Your task to perform on an android device: Clear the shopping cart on newegg.com. Search for "razer naga" on newegg.com, select the first entry, and add it to the cart. Image 0: 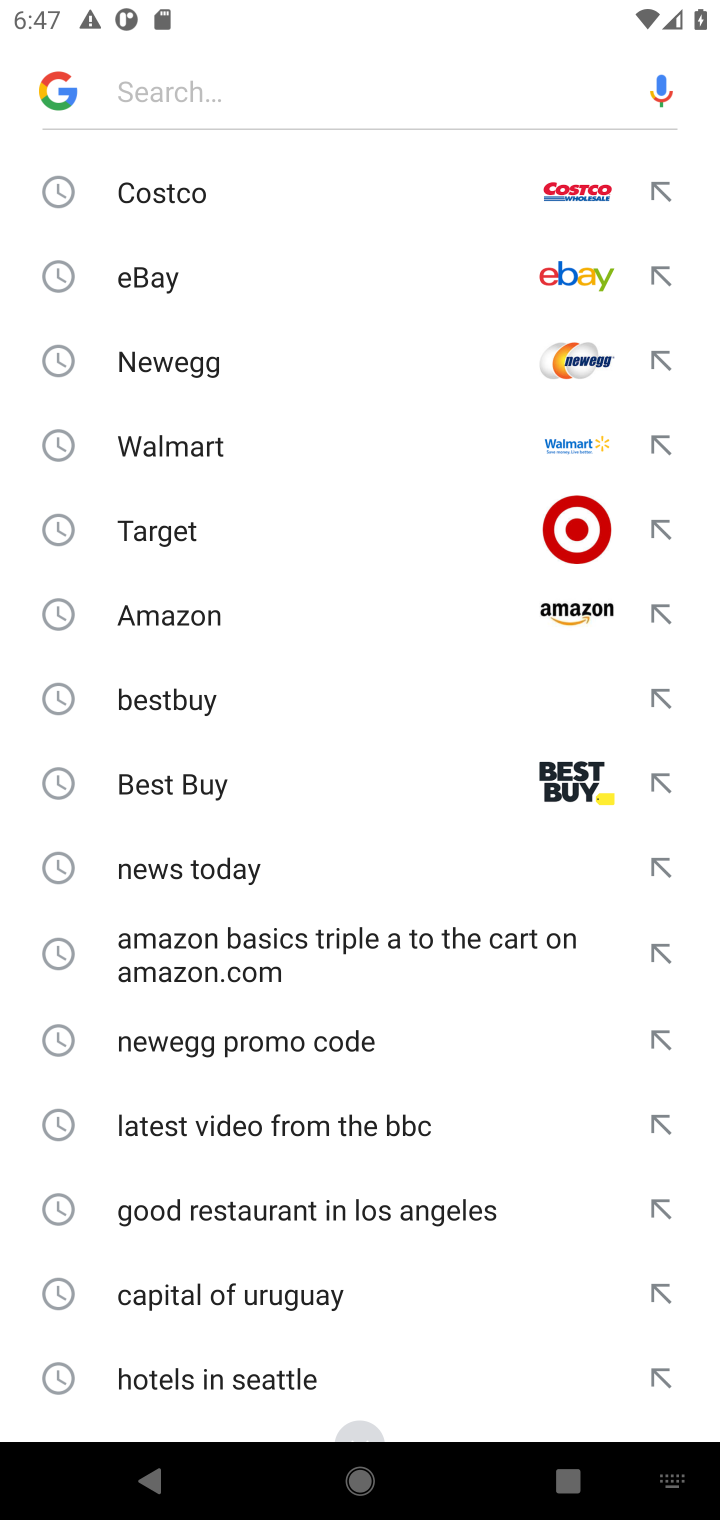
Step 0: press home button
Your task to perform on an android device: Clear the shopping cart on newegg.com. Search for "razer naga" on newegg.com, select the first entry, and add it to the cart. Image 1: 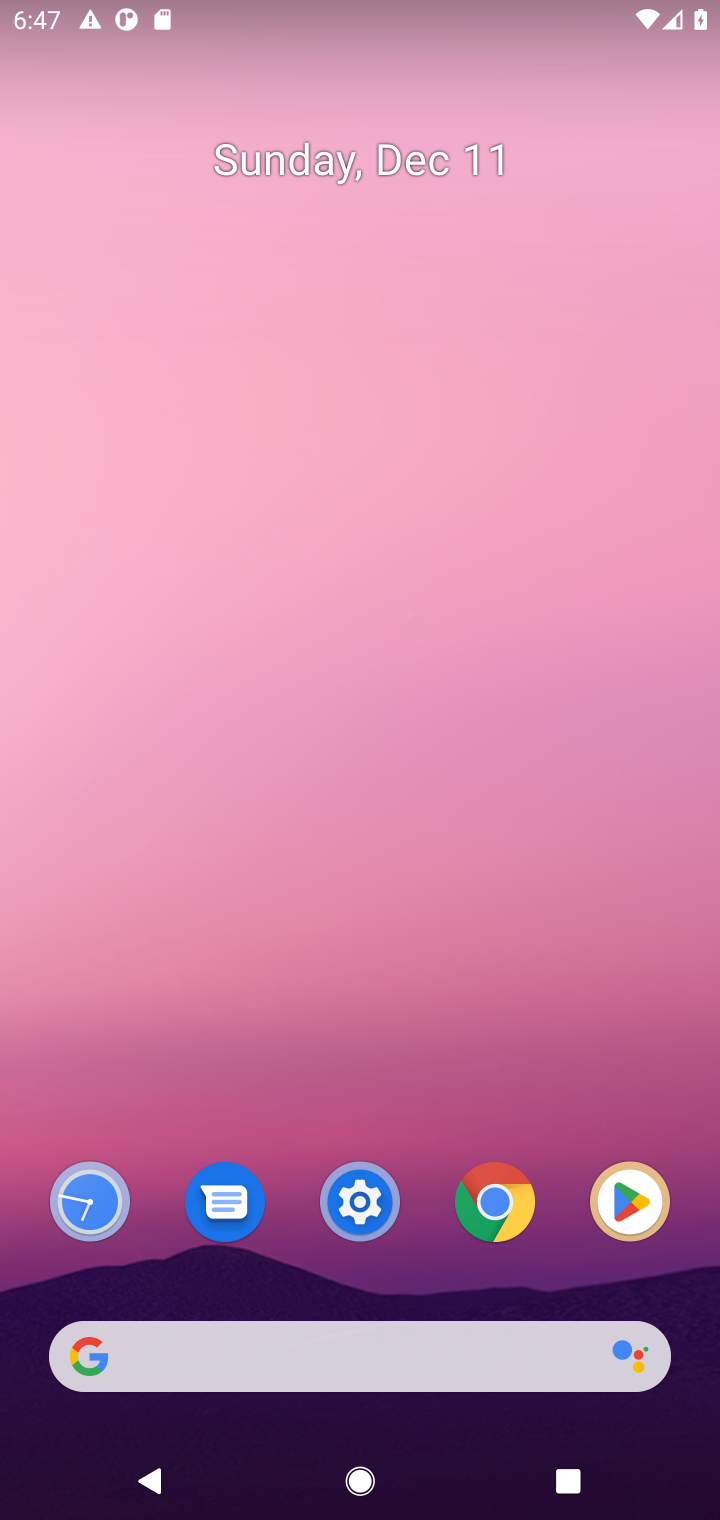
Step 1: drag from (241, 1361) to (498, 263)
Your task to perform on an android device: Clear the shopping cart on newegg.com. Search for "razer naga" on newegg.com, select the first entry, and add it to the cart. Image 2: 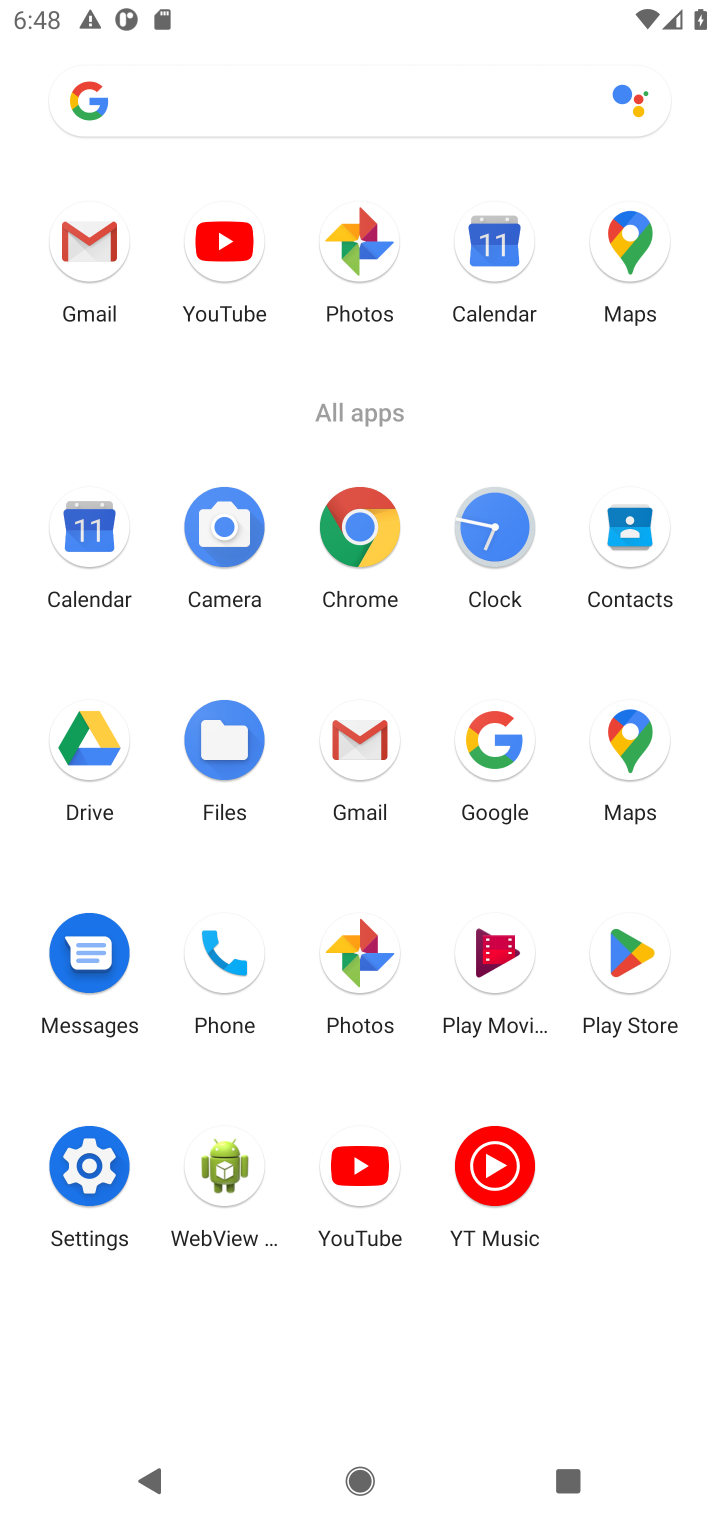
Step 2: click (363, 532)
Your task to perform on an android device: Clear the shopping cart on newegg.com. Search for "razer naga" on newegg.com, select the first entry, and add it to the cart. Image 3: 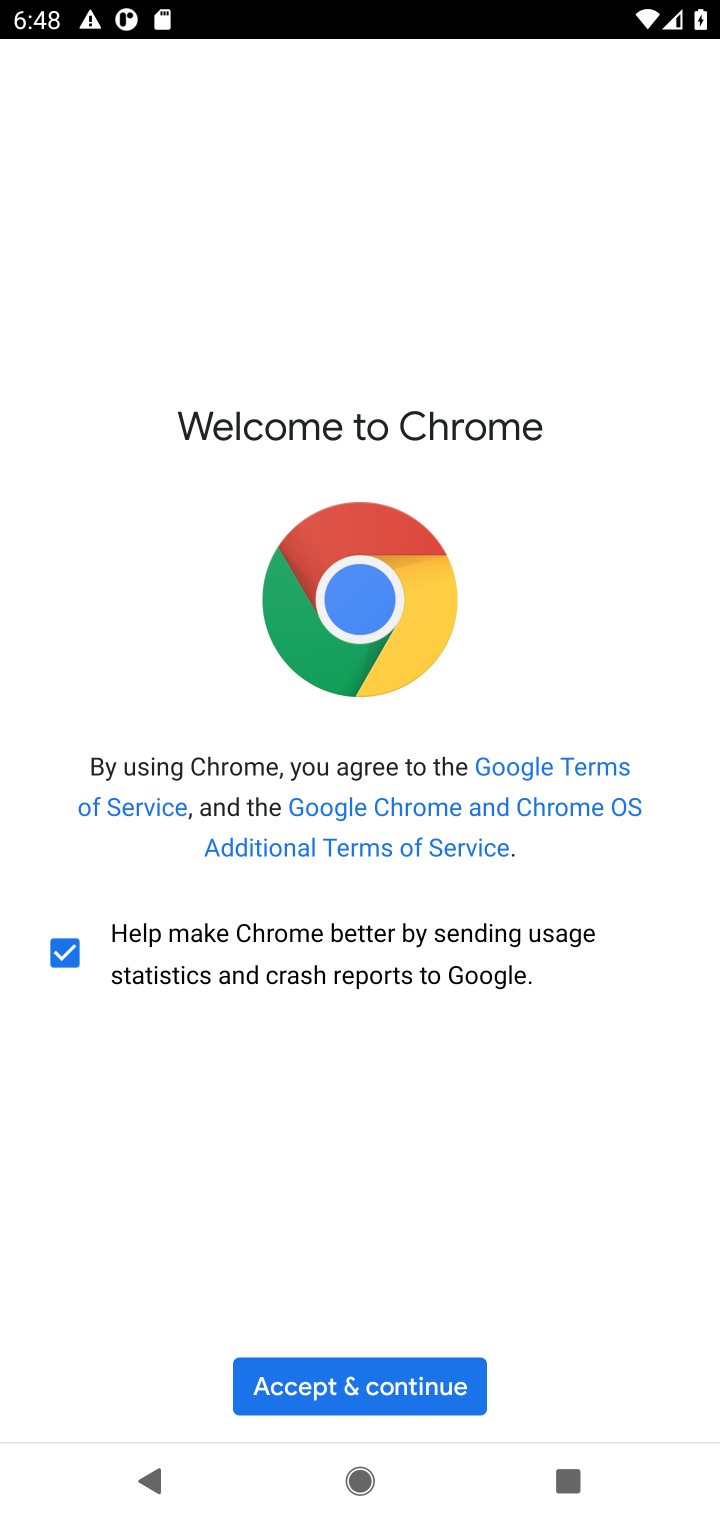
Step 3: click (375, 1377)
Your task to perform on an android device: Clear the shopping cart on newegg.com. Search for "razer naga" on newegg.com, select the first entry, and add it to the cart. Image 4: 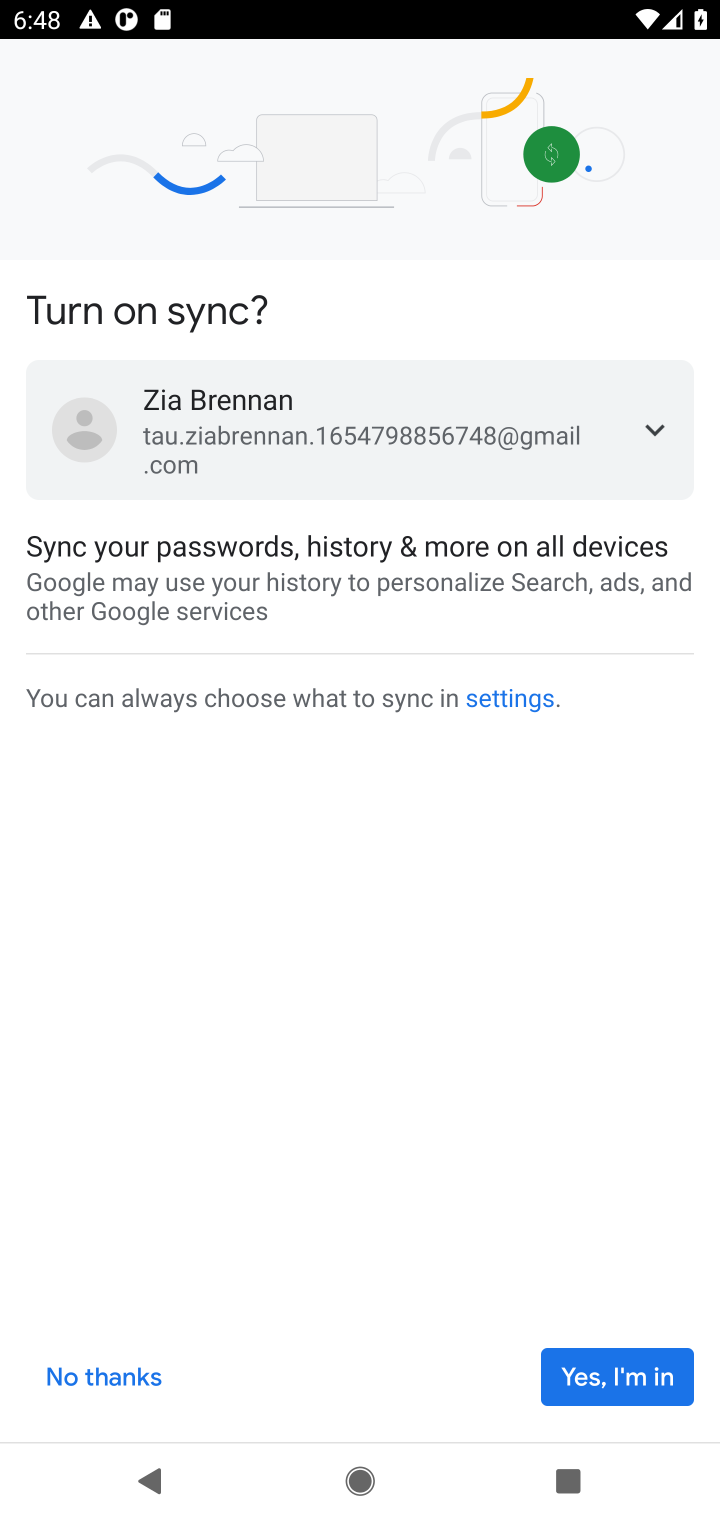
Step 4: click (612, 1373)
Your task to perform on an android device: Clear the shopping cart on newegg.com. Search for "razer naga" on newegg.com, select the first entry, and add it to the cart. Image 5: 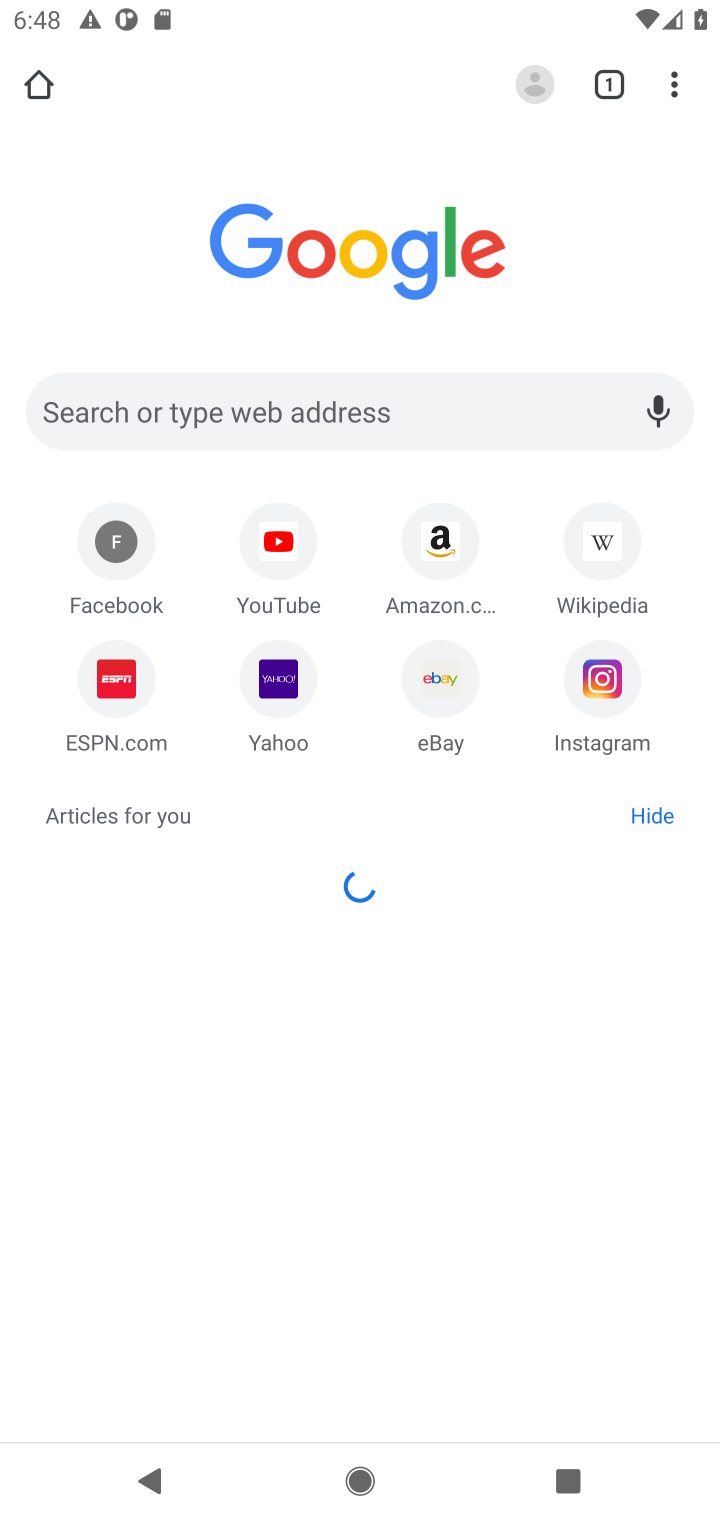
Step 5: click (475, 415)
Your task to perform on an android device: Clear the shopping cart on newegg.com. Search for "razer naga" on newegg.com, select the first entry, and add it to the cart. Image 6: 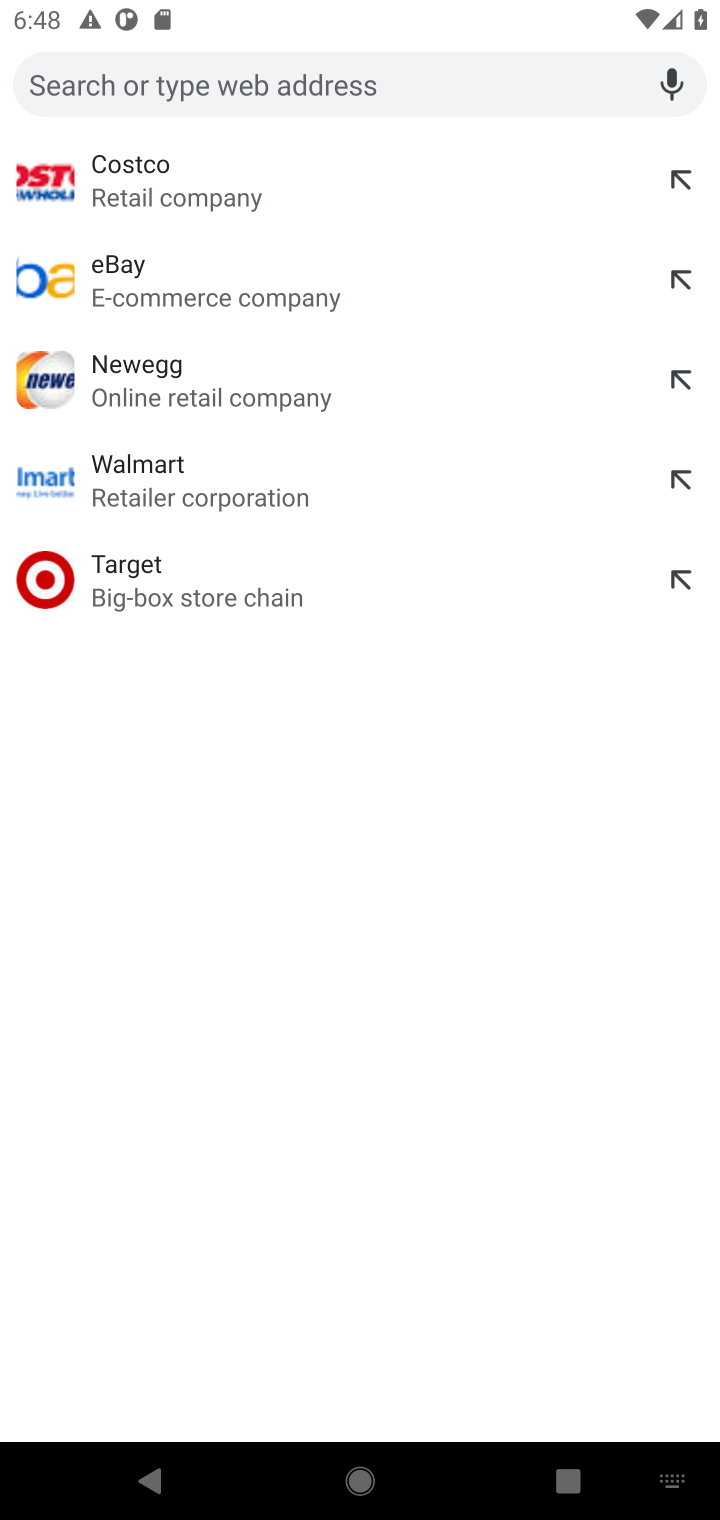
Step 6: type "newegg.com"
Your task to perform on an android device: Clear the shopping cart on newegg.com. Search for "razer naga" on newegg.com, select the first entry, and add it to the cart. Image 7: 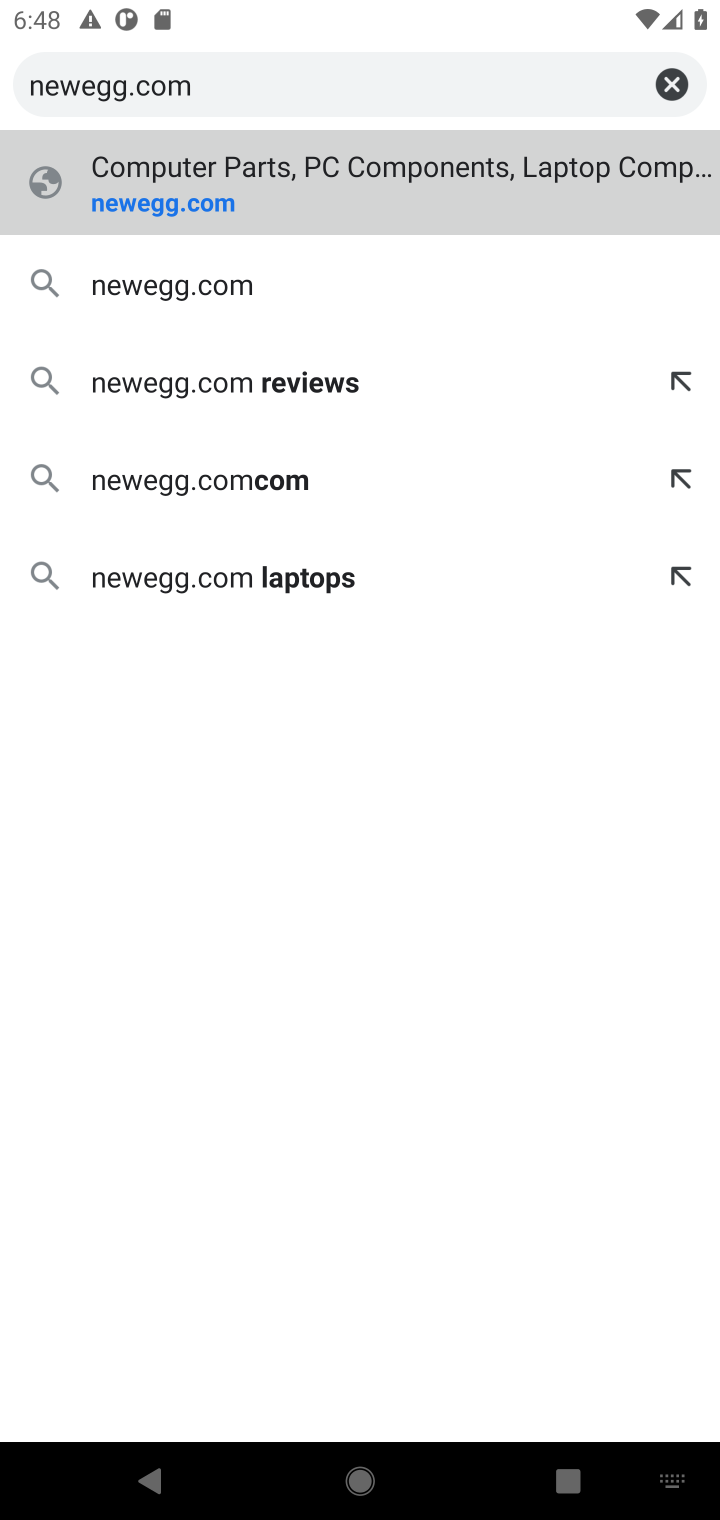
Step 7: click (218, 282)
Your task to perform on an android device: Clear the shopping cart on newegg.com. Search for "razer naga" on newegg.com, select the first entry, and add it to the cart. Image 8: 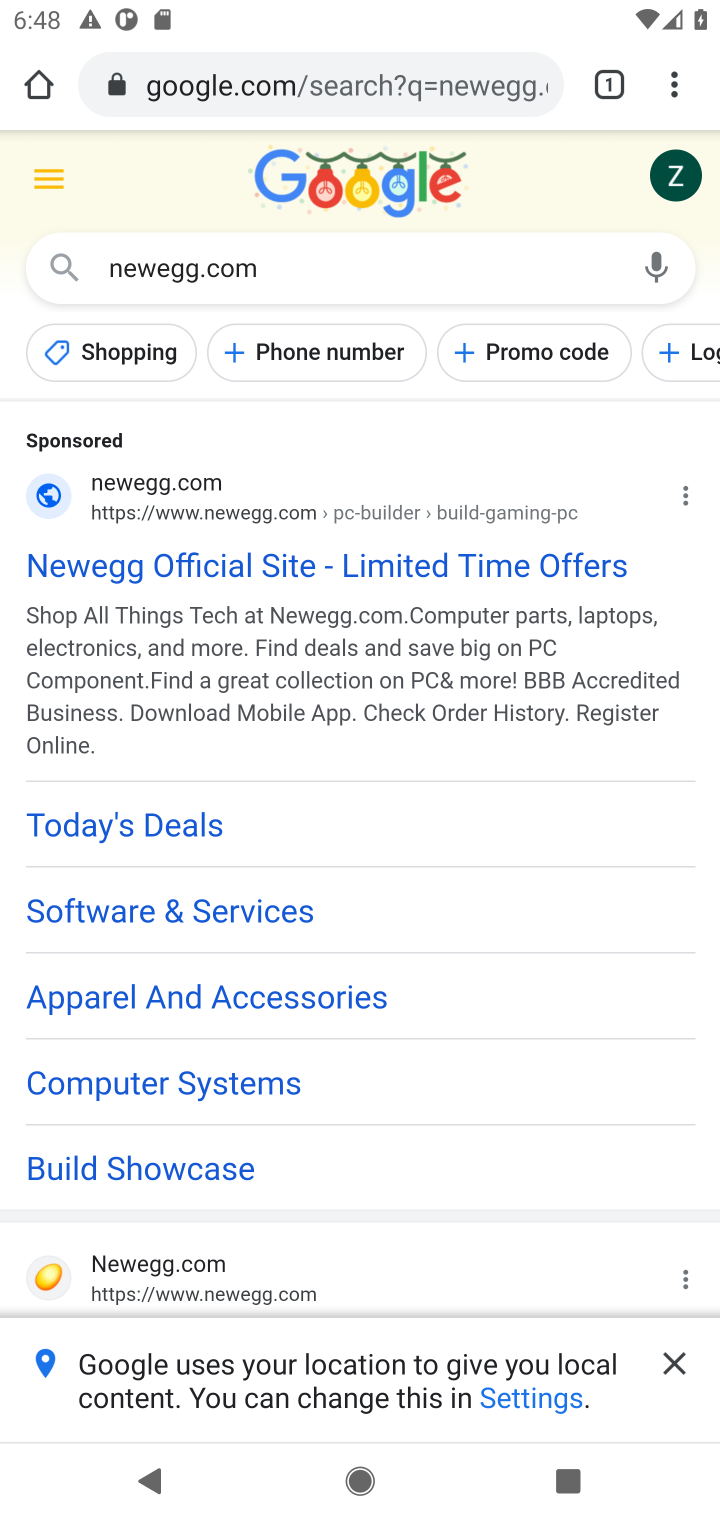
Step 8: click (240, 1272)
Your task to perform on an android device: Clear the shopping cart on newegg.com. Search for "razer naga" on newegg.com, select the first entry, and add it to the cart. Image 9: 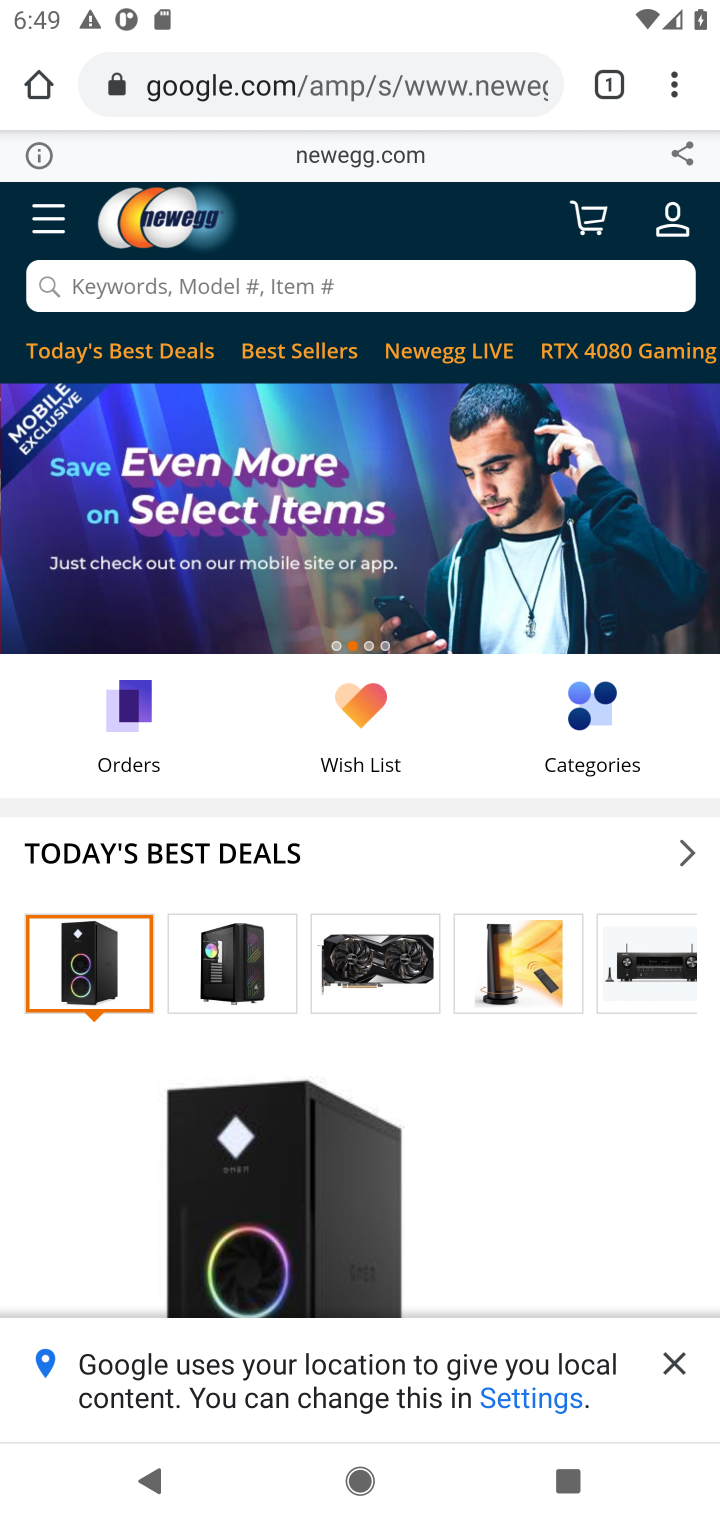
Step 9: click (601, 228)
Your task to perform on an android device: Clear the shopping cart on newegg.com. Search for "razer naga" on newegg.com, select the first entry, and add it to the cart. Image 10: 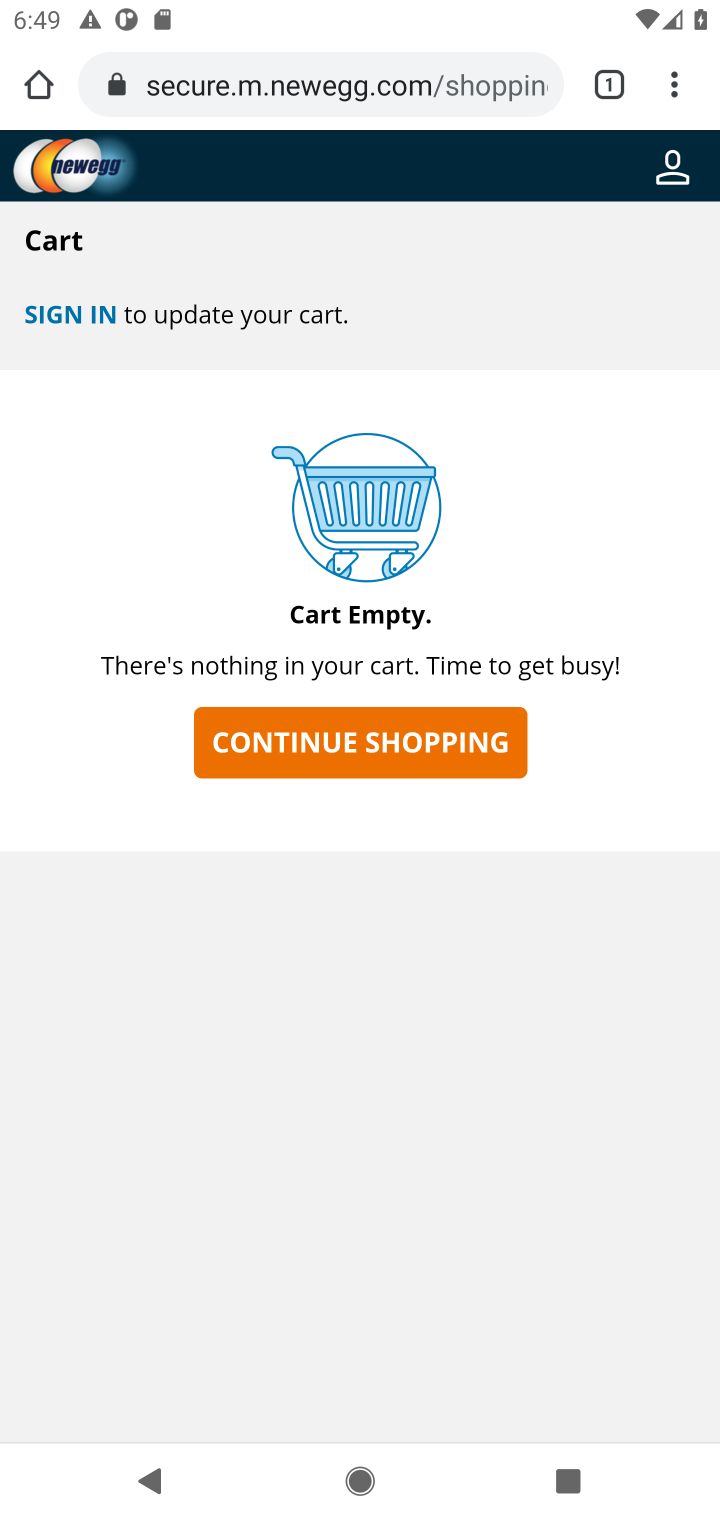
Step 10: click (339, 736)
Your task to perform on an android device: Clear the shopping cart on newegg.com. Search for "razer naga" on newegg.com, select the first entry, and add it to the cart. Image 11: 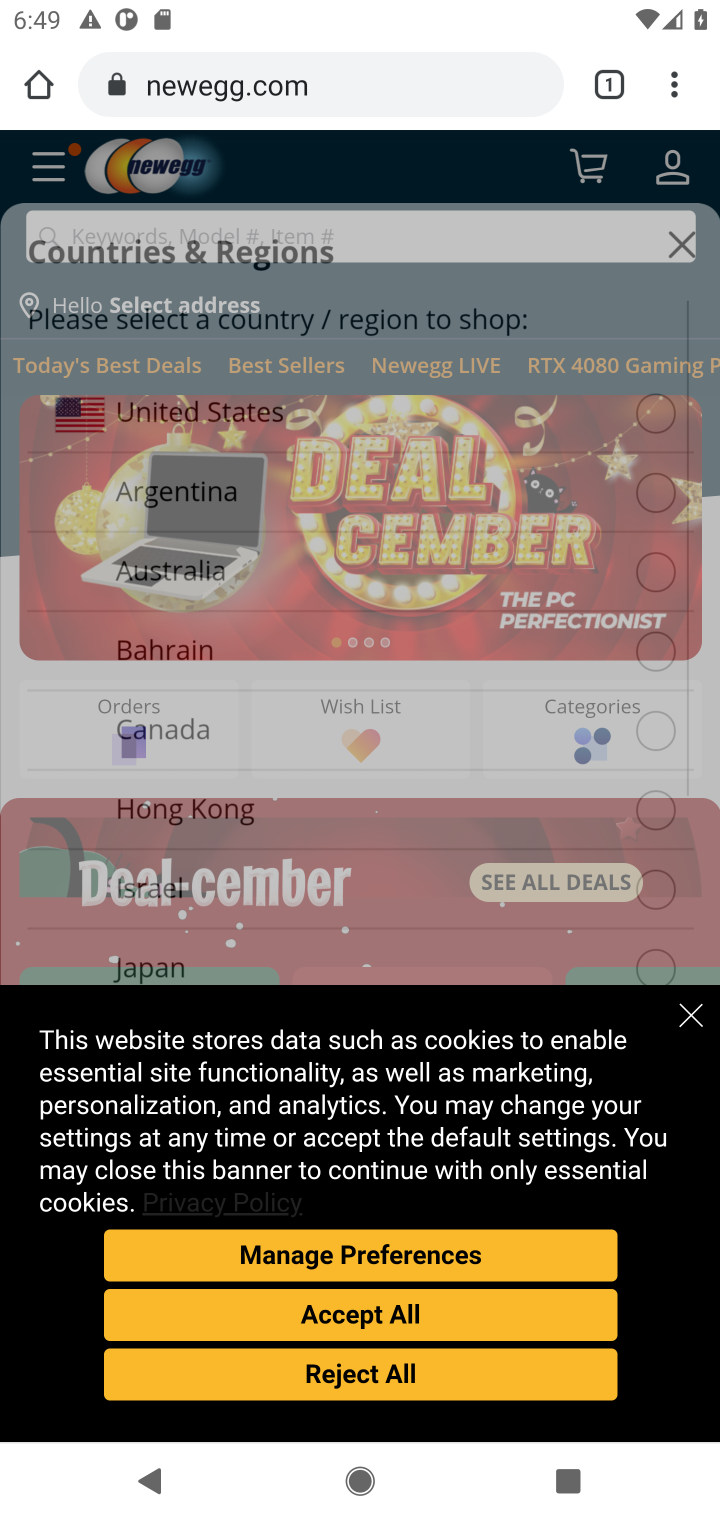
Step 11: click (335, 230)
Your task to perform on an android device: Clear the shopping cart on newegg.com. Search for "razer naga" on newegg.com, select the first entry, and add it to the cart. Image 12: 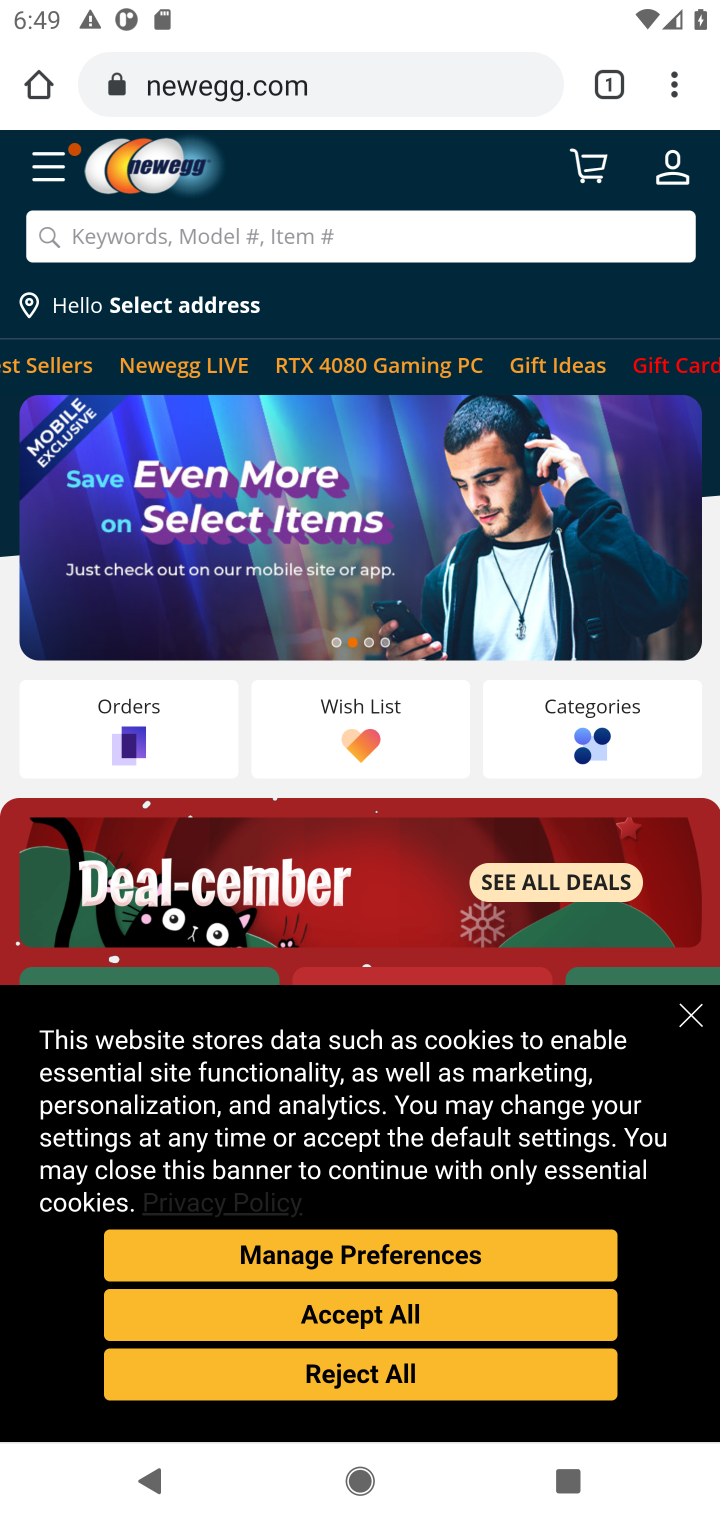
Step 12: click (496, 230)
Your task to perform on an android device: Clear the shopping cart on newegg.com. Search for "razer naga" on newegg.com, select the first entry, and add it to the cart. Image 13: 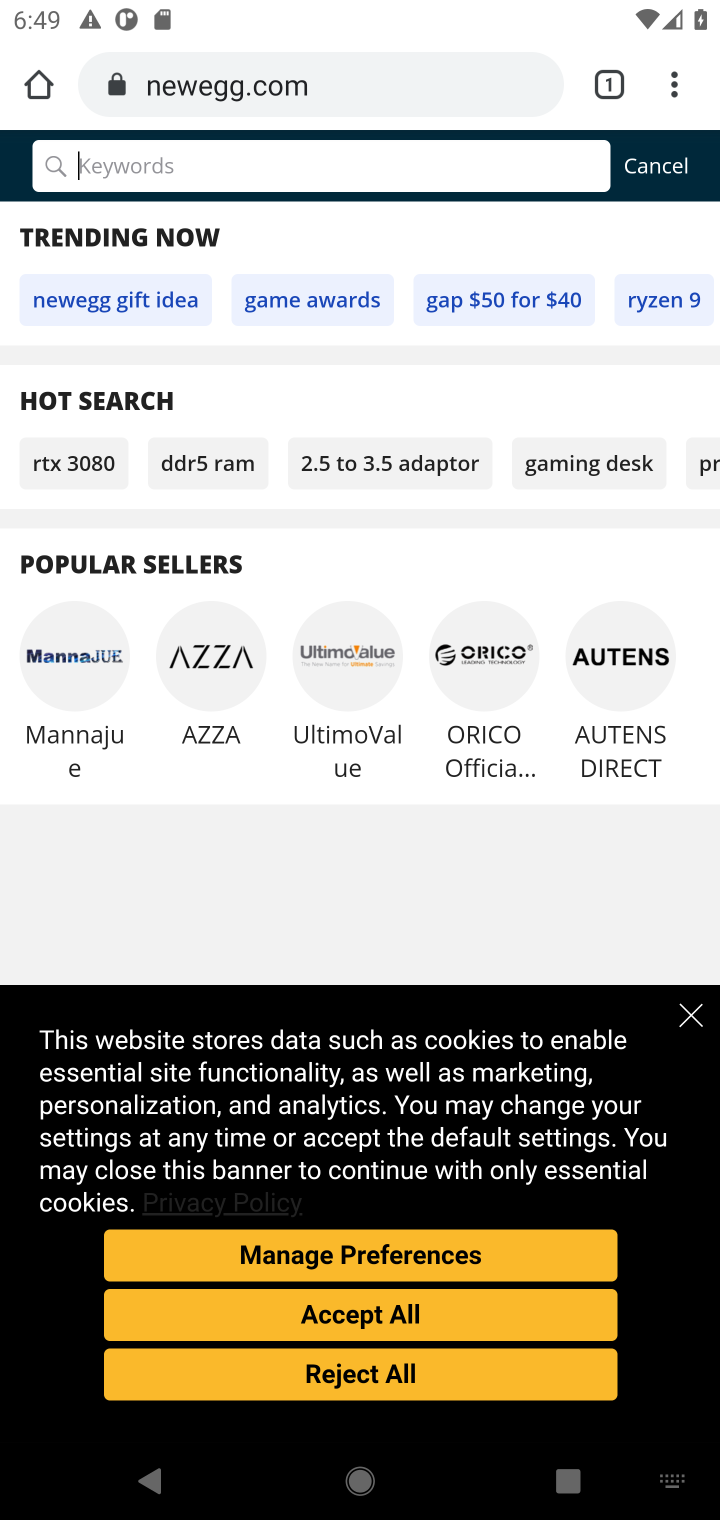
Step 13: type "razer naga"
Your task to perform on an android device: Clear the shopping cart on newegg.com. Search for "razer naga" on newegg.com, select the first entry, and add it to the cart. Image 14: 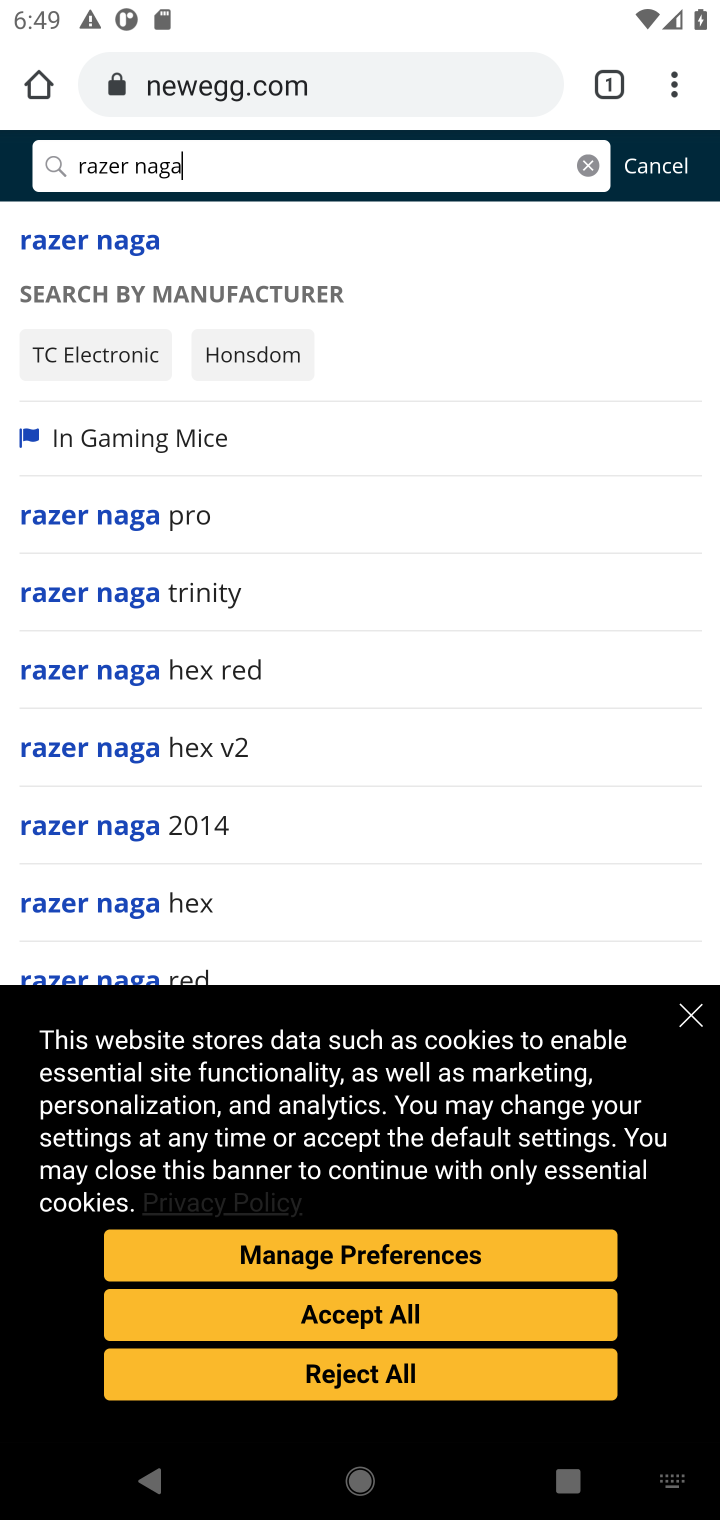
Step 14: click (138, 244)
Your task to perform on an android device: Clear the shopping cart on newegg.com. Search for "razer naga" on newegg.com, select the first entry, and add it to the cart. Image 15: 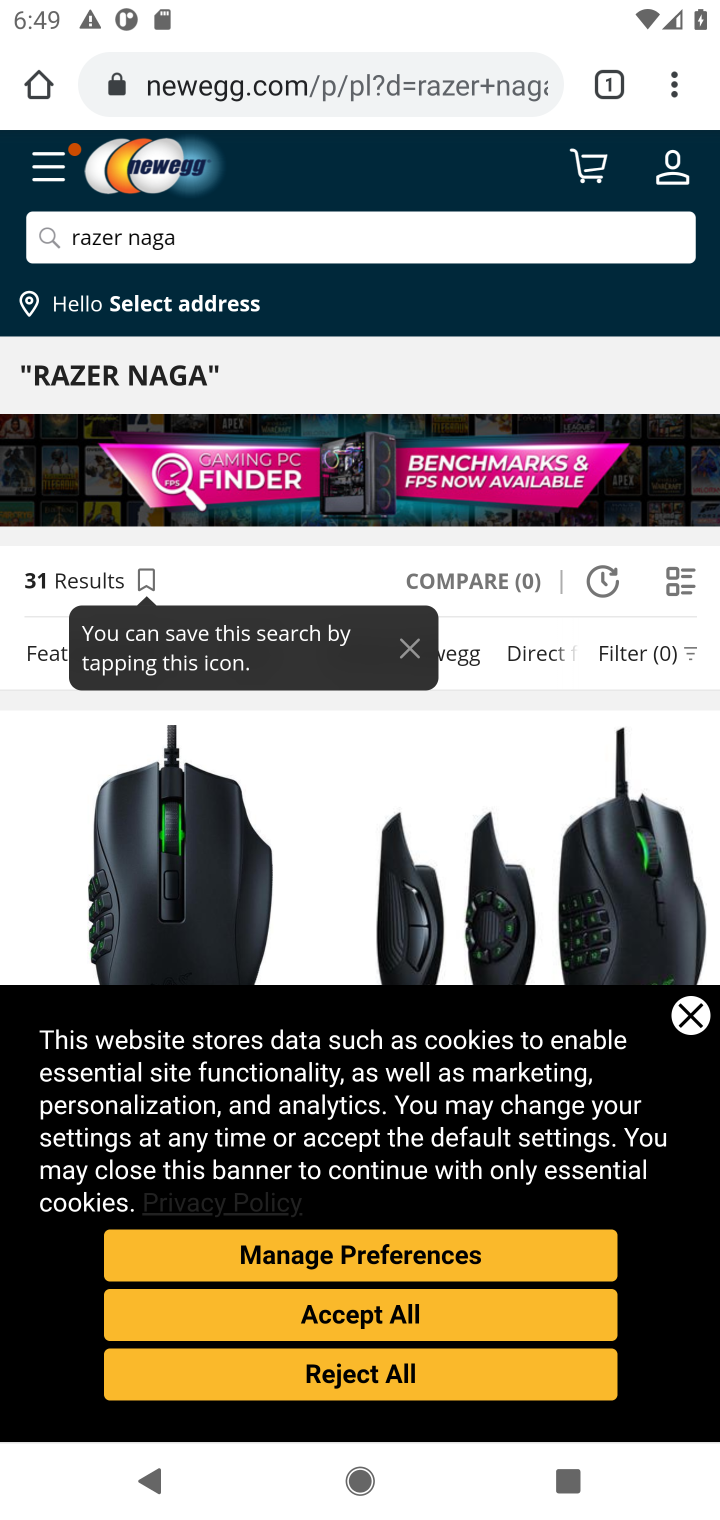
Step 15: click (689, 1002)
Your task to perform on an android device: Clear the shopping cart on newegg.com. Search for "razer naga" on newegg.com, select the first entry, and add it to the cart. Image 16: 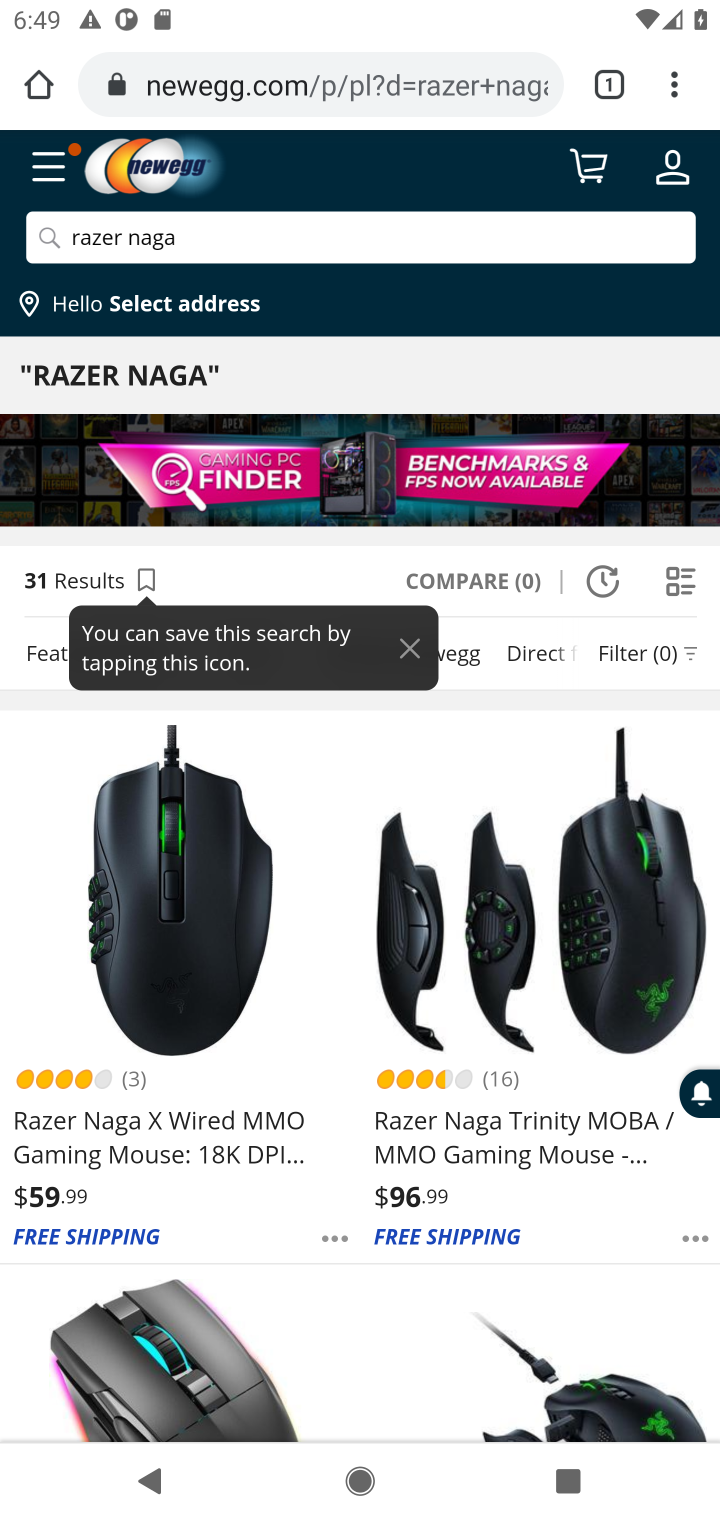
Step 16: click (147, 1129)
Your task to perform on an android device: Clear the shopping cart on newegg.com. Search for "razer naga" on newegg.com, select the first entry, and add it to the cart. Image 17: 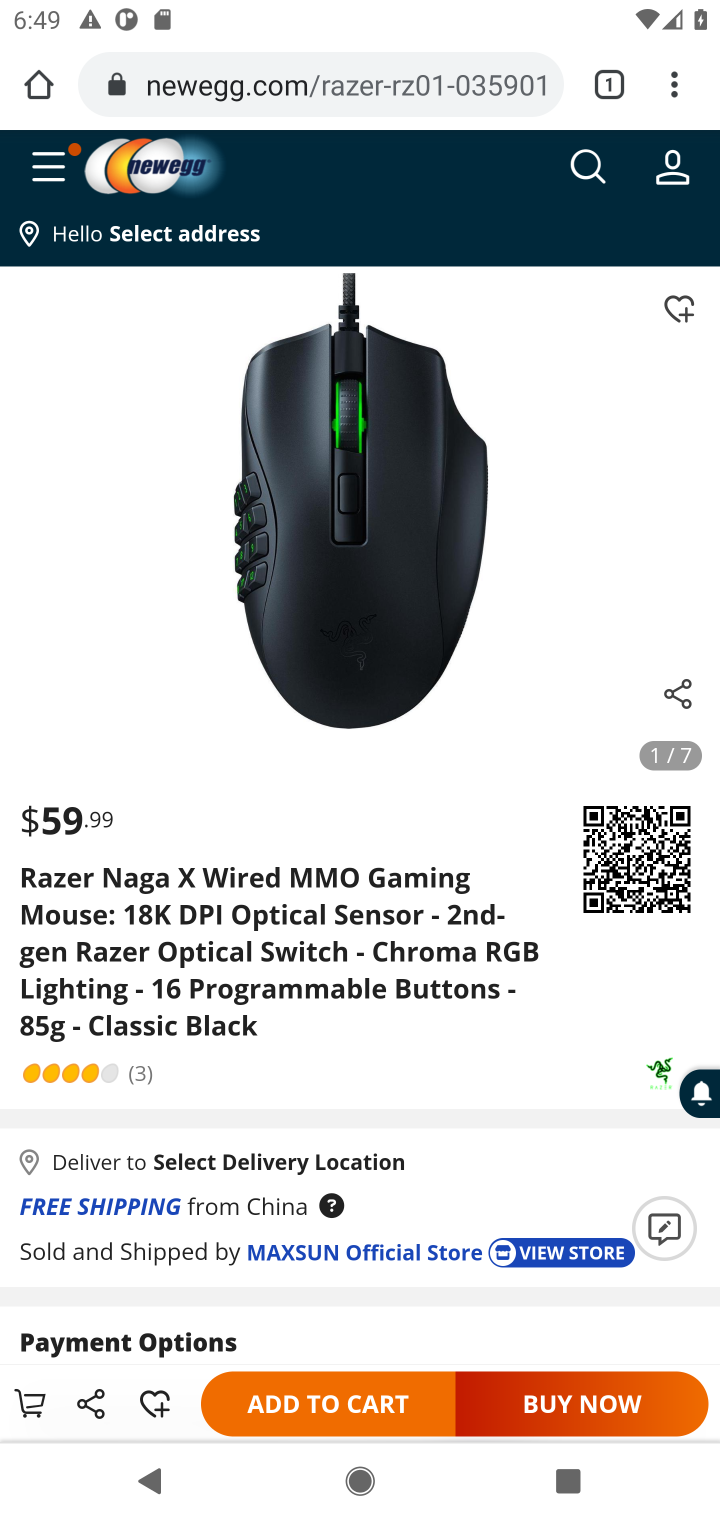
Step 17: click (346, 1407)
Your task to perform on an android device: Clear the shopping cart on newegg.com. Search for "razer naga" on newegg.com, select the first entry, and add it to the cart. Image 18: 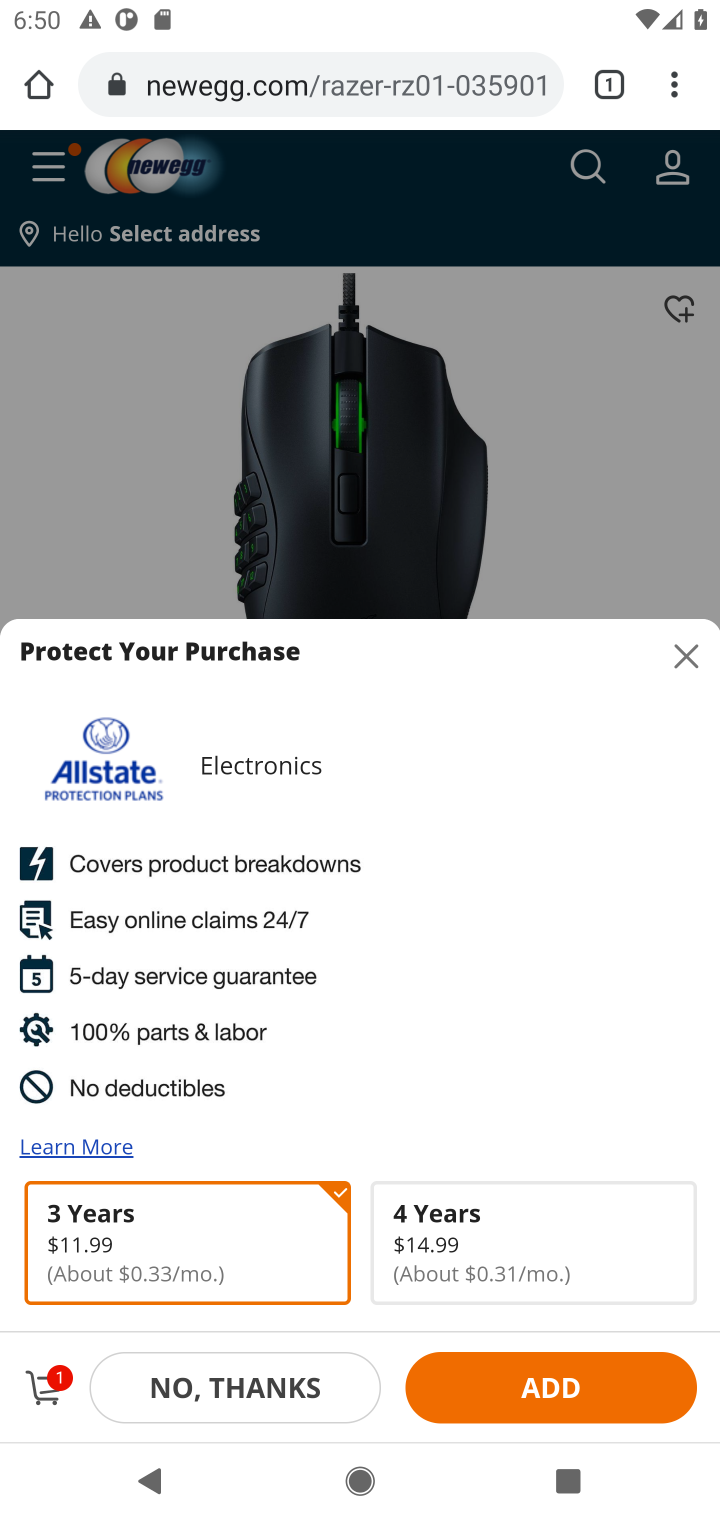
Step 18: task complete